Your task to perform on an android device: turn on wifi Image 0: 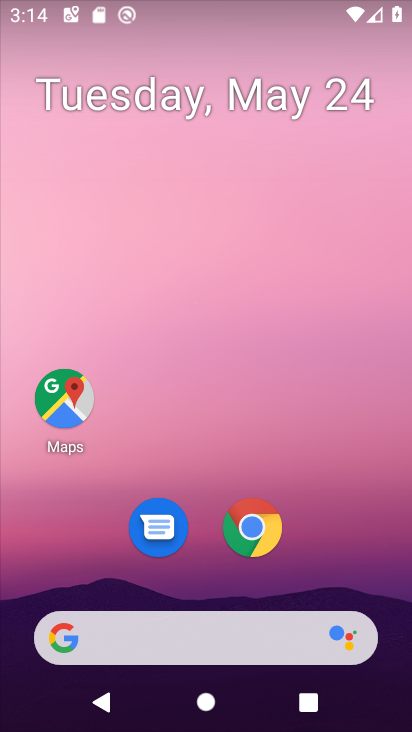
Step 0: drag from (361, 567) to (395, 13)
Your task to perform on an android device: turn on wifi Image 1: 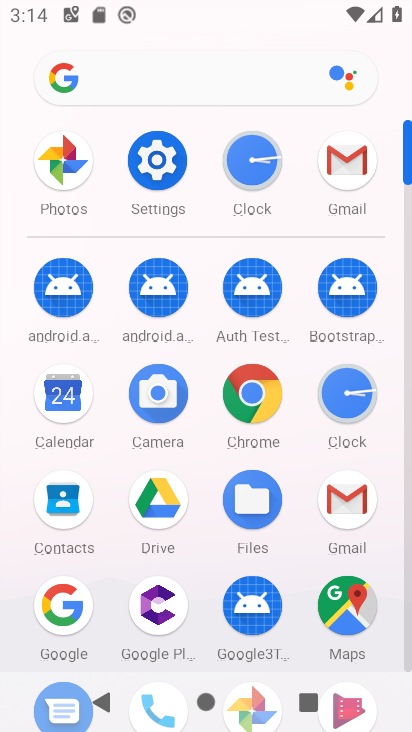
Step 1: click (157, 161)
Your task to perform on an android device: turn on wifi Image 2: 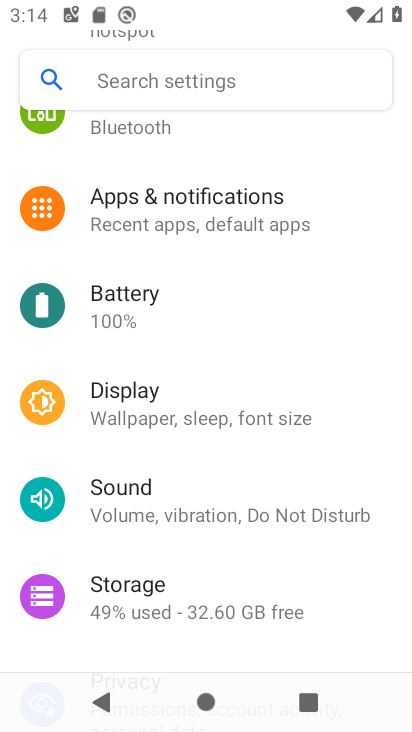
Step 2: drag from (334, 159) to (315, 409)
Your task to perform on an android device: turn on wifi Image 3: 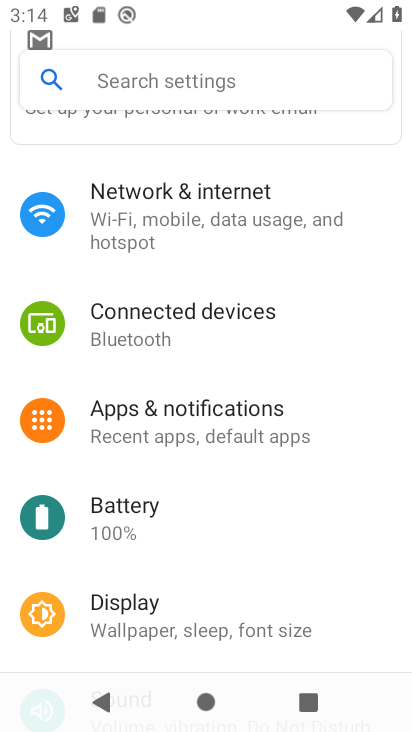
Step 3: click (164, 215)
Your task to perform on an android device: turn on wifi Image 4: 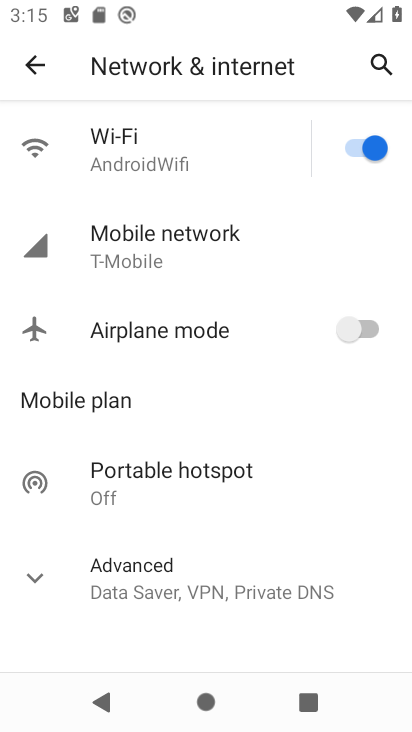
Step 4: task complete